Your task to perform on an android device: Go to wifi settings Image 0: 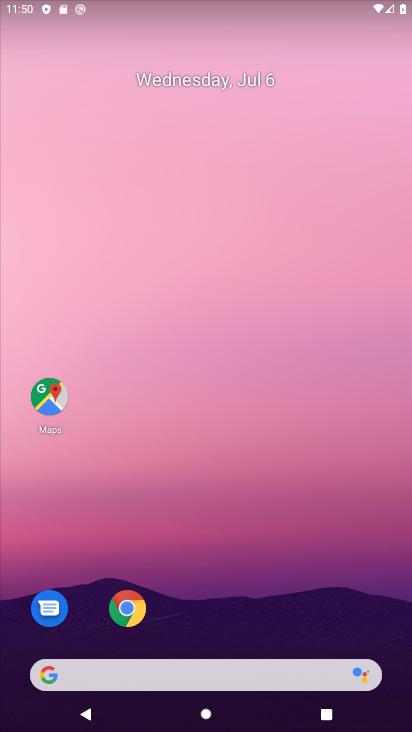
Step 0: drag from (272, 671) to (333, 101)
Your task to perform on an android device: Go to wifi settings Image 1: 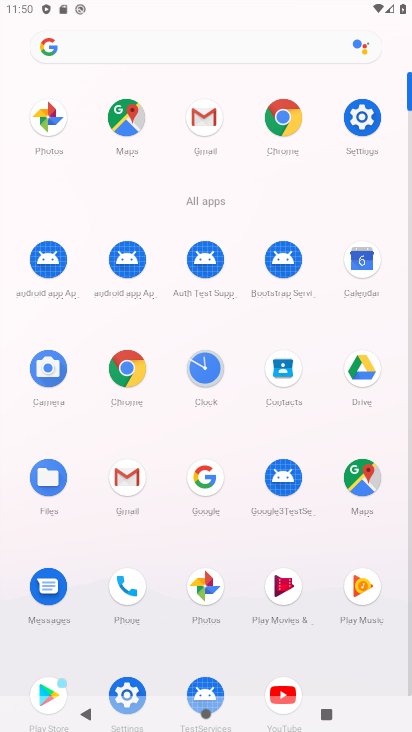
Step 1: click (350, 109)
Your task to perform on an android device: Go to wifi settings Image 2: 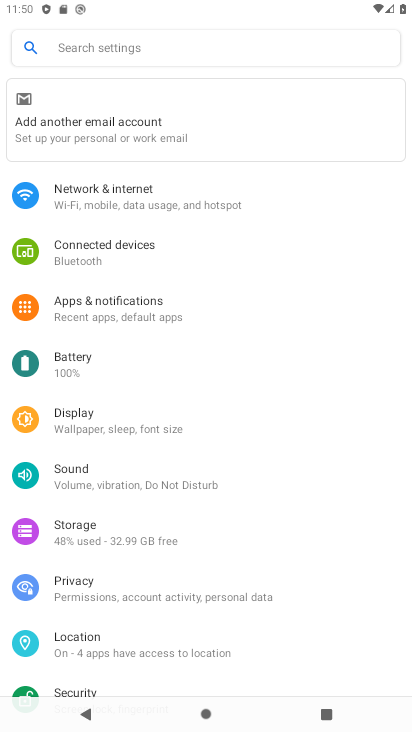
Step 2: click (107, 202)
Your task to perform on an android device: Go to wifi settings Image 3: 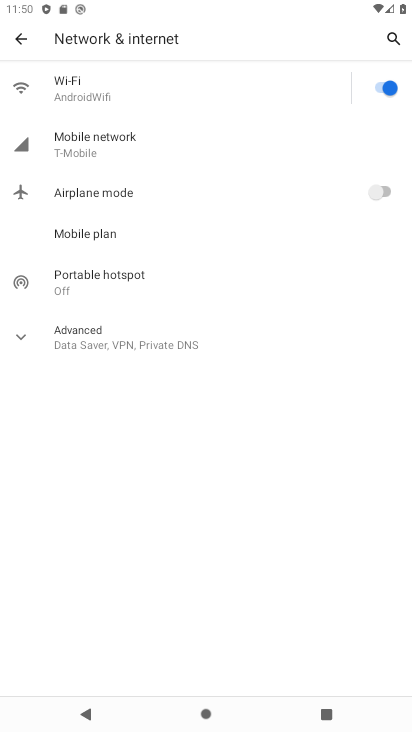
Step 3: click (116, 95)
Your task to perform on an android device: Go to wifi settings Image 4: 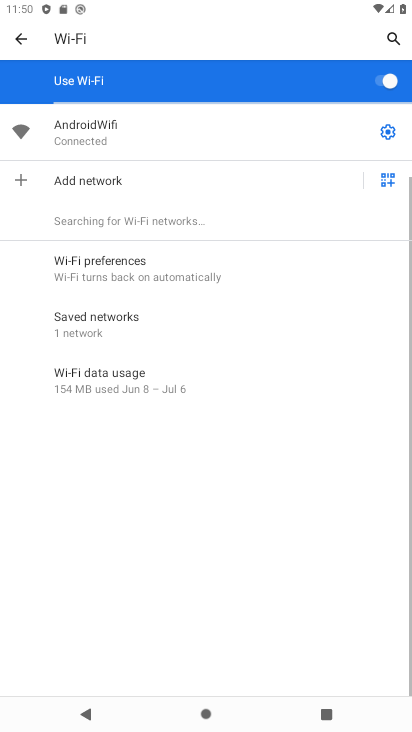
Step 4: task complete